Your task to perform on an android device: toggle javascript in the chrome app Image 0: 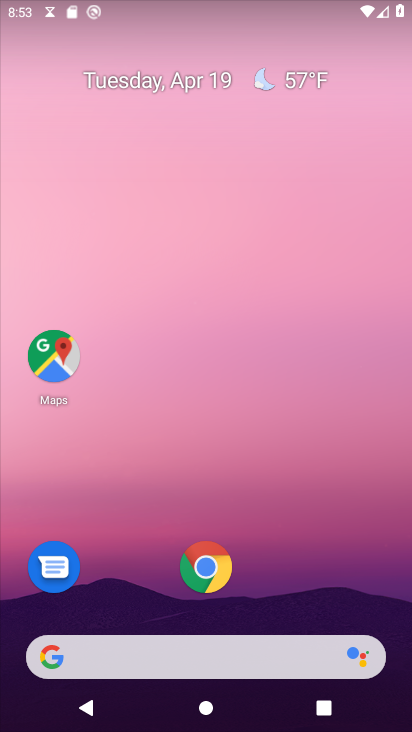
Step 0: drag from (343, 535) to (345, 45)
Your task to perform on an android device: toggle javascript in the chrome app Image 1: 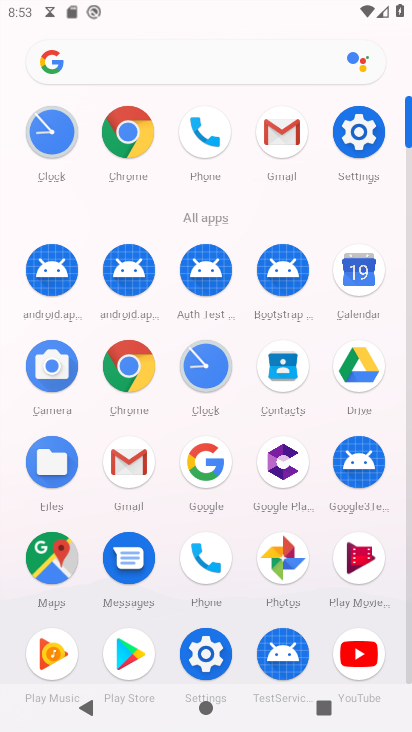
Step 1: click (133, 143)
Your task to perform on an android device: toggle javascript in the chrome app Image 2: 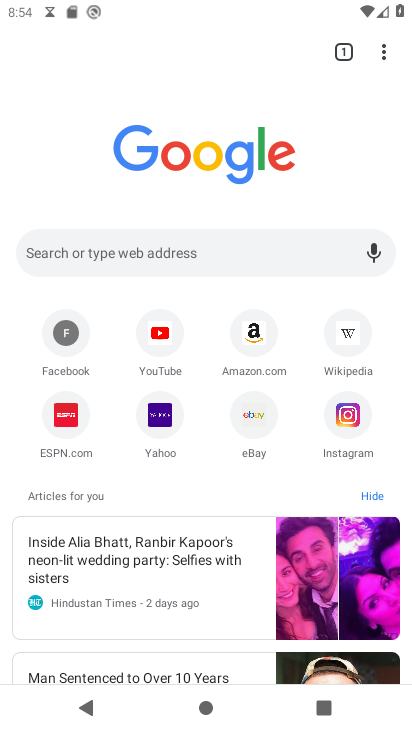
Step 2: drag from (391, 54) to (176, 457)
Your task to perform on an android device: toggle javascript in the chrome app Image 3: 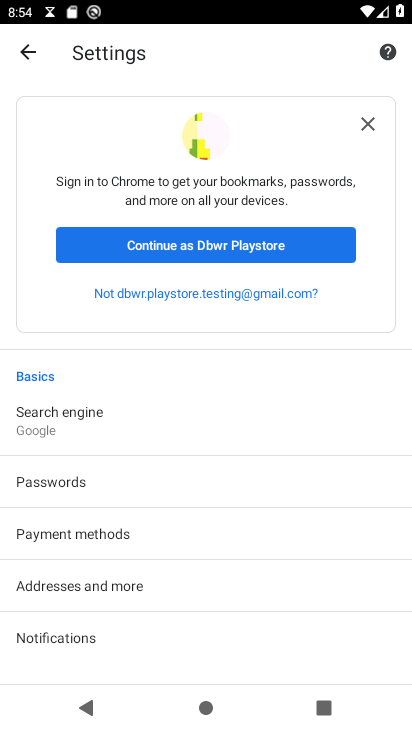
Step 3: drag from (140, 641) to (145, 343)
Your task to perform on an android device: toggle javascript in the chrome app Image 4: 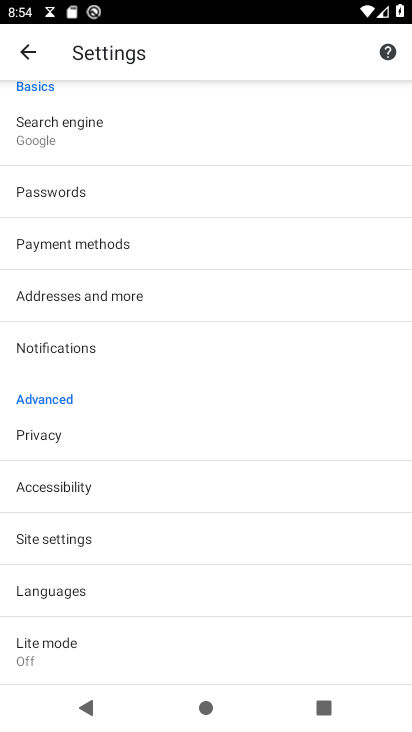
Step 4: click (100, 544)
Your task to perform on an android device: toggle javascript in the chrome app Image 5: 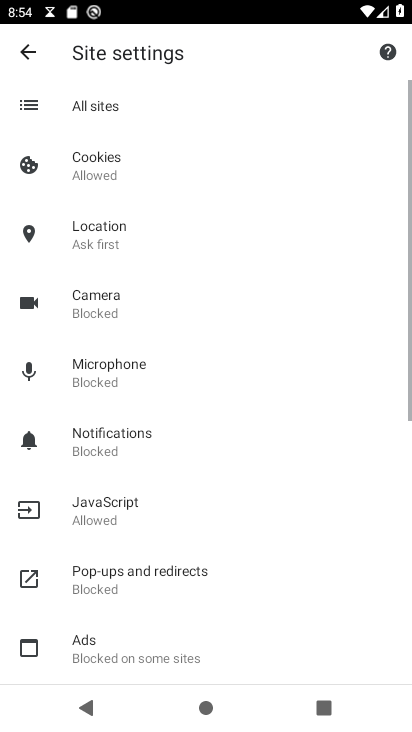
Step 5: click (80, 519)
Your task to perform on an android device: toggle javascript in the chrome app Image 6: 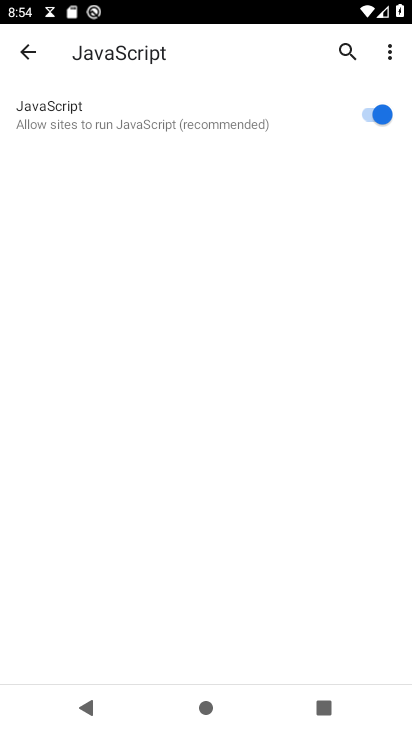
Step 6: task complete